Your task to perform on an android device: Show me the alarms in the clock app Image 0: 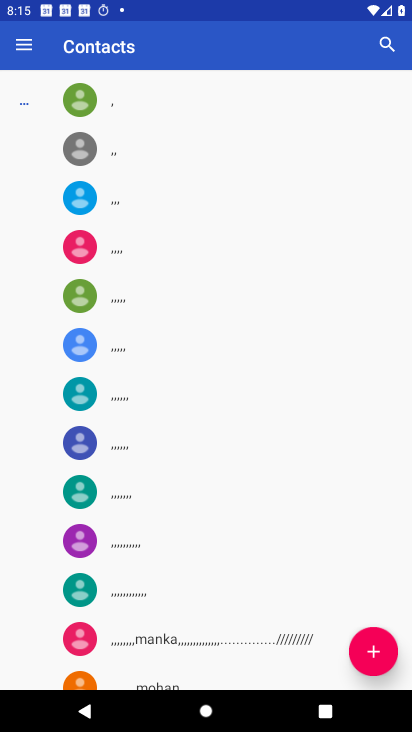
Step 0: press home button
Your task to perform on an android device: Show me the alarms in the clock app Image 1: 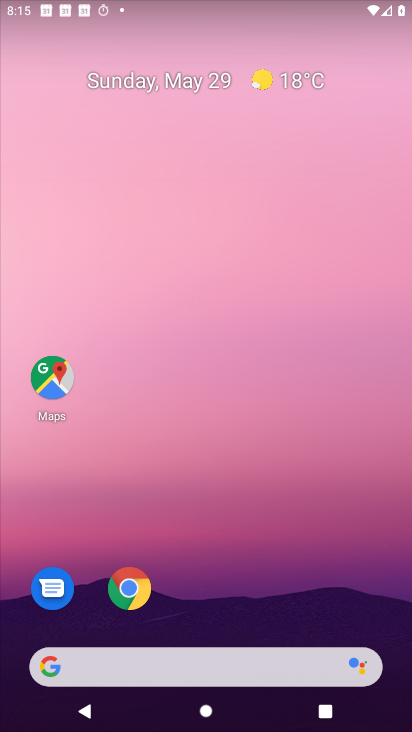
Step 1: drag from (249, 540) to (329, 158)
Your task to perform on an android device: Show me the alarms in the clock app Image 2: 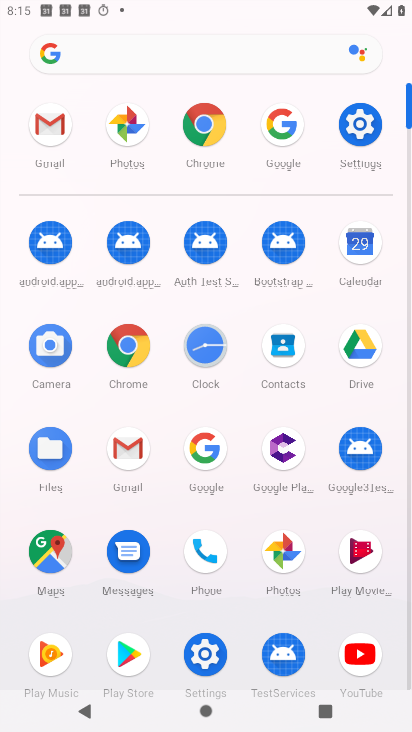
Step 2: click (211, 341)
Your task to perform on an android device: Show me the alarms in the clock app Image 3: 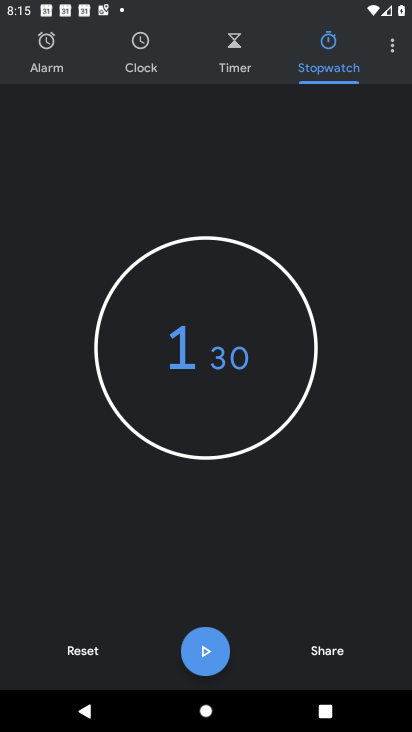
Step 3: click (48, 67)
Your task to perform on an android device: Show me the alarms in the clock app Image 4: 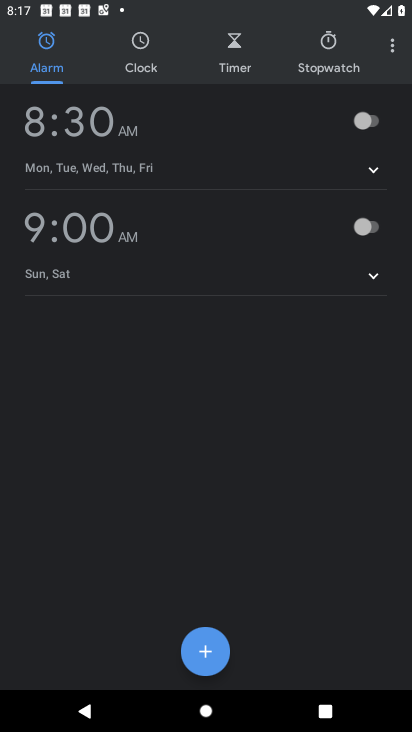
Step 4: task complete